Your task to perform on an android device: check google app version Image 0: 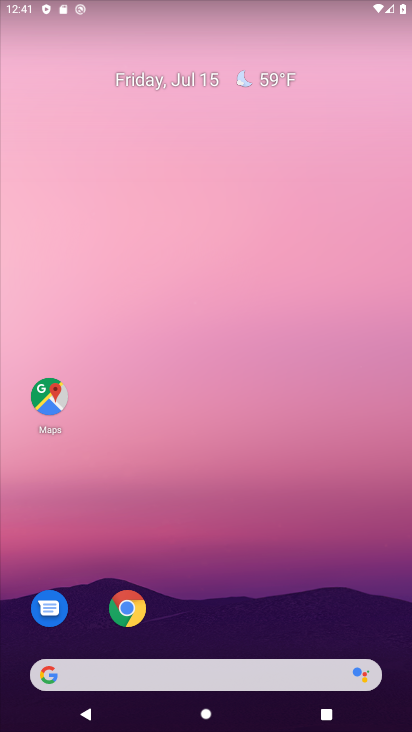
Step 0: drag from (173, 676) to (192, 188)
Your task to perform on an android device: check google app version Image 1: 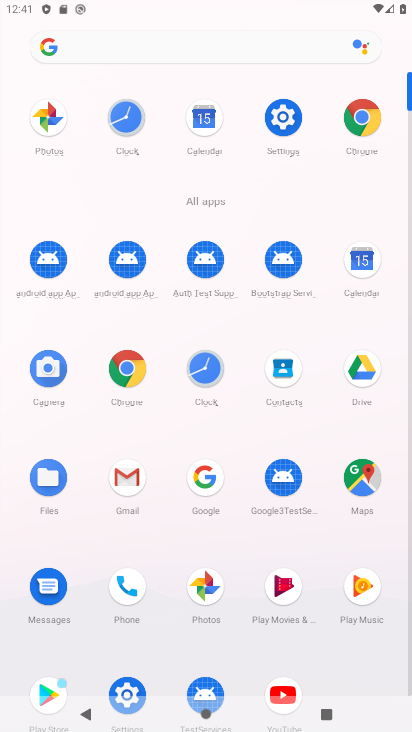
Step 1: click (203, 485)
Your task to perform on an android device: check google app version Image 2: 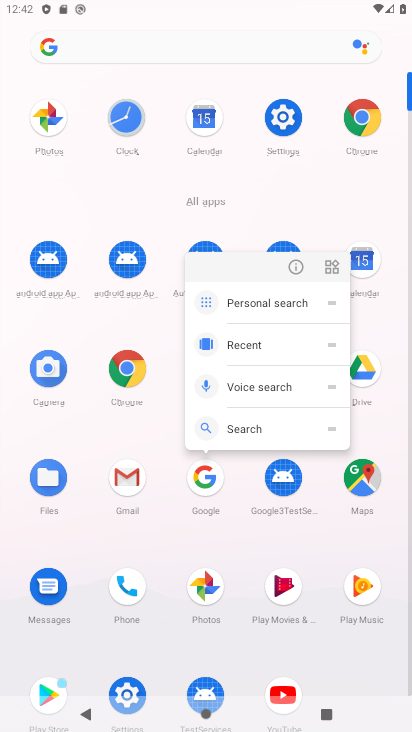
Step 2: click (289, 269)
Your task to perform on an android device: check google app version Image 3: 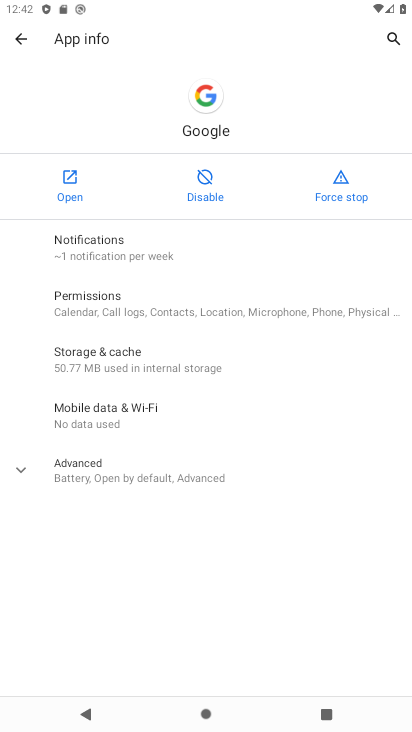
Step 3: click (127, 478)
Your task to perform on an android device: check google app version Image 4: 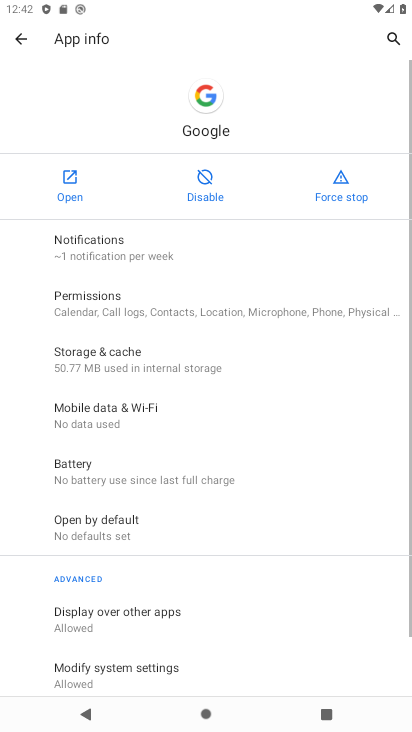
Step 4: task complete